Your task to perform on an android device: toggle airplane mode Image 0: 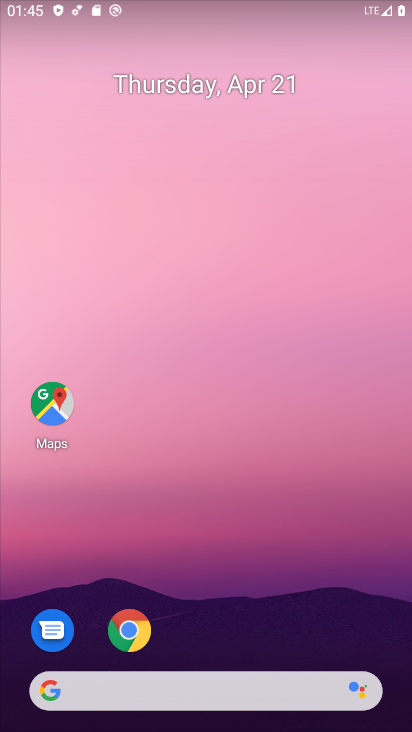
Step 0: drag from (212, 647) to (158, 9)
Your task to perform on an android device: toggle airplane mode Image 1: 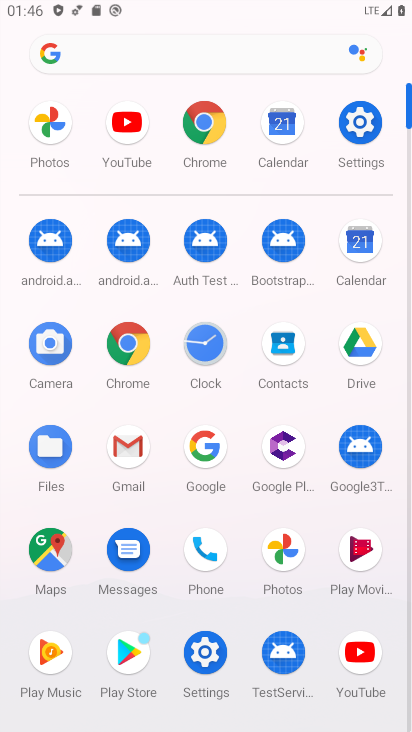
Step 1: click (354, 150)
Your task to perform on an android device: toggle airplane mode Image 2: 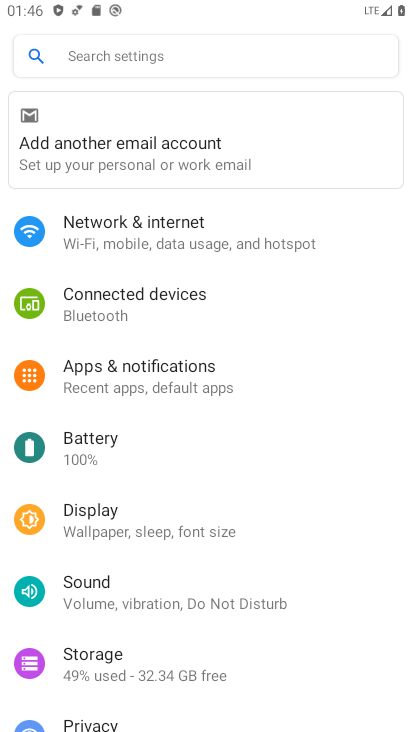
Step 2: click (204, 253)
Your task to perform on an android device: toggle airplane mode Image 3: 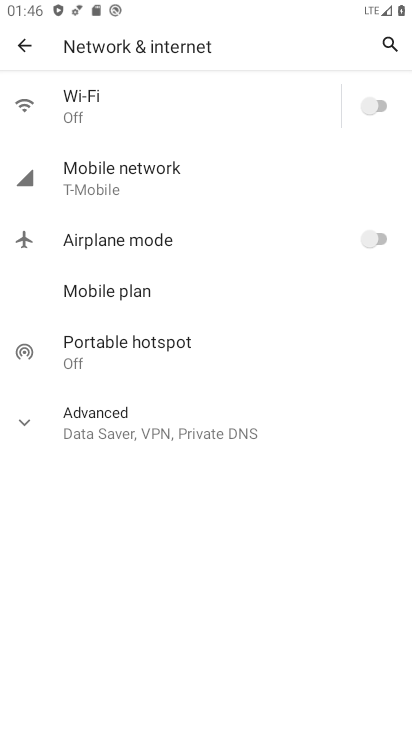
Step 3: click (378, 243)
Your task to perform on an android device: toggle airplane mode Image 4: 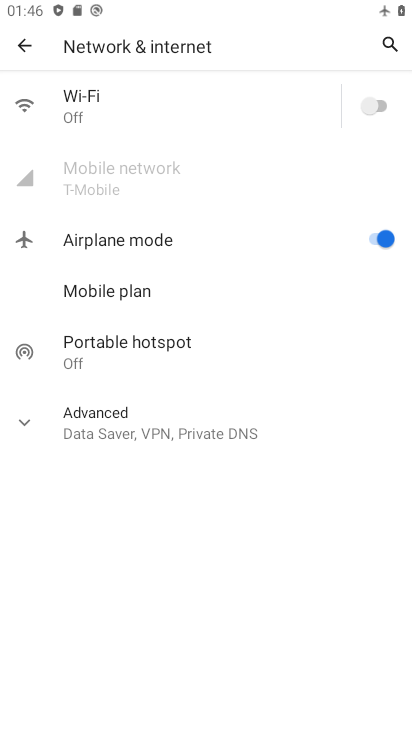
Step 4: task complete